Your task to perform on an android device: uninstall "Pandora - Music & Podcasts" Image 0: 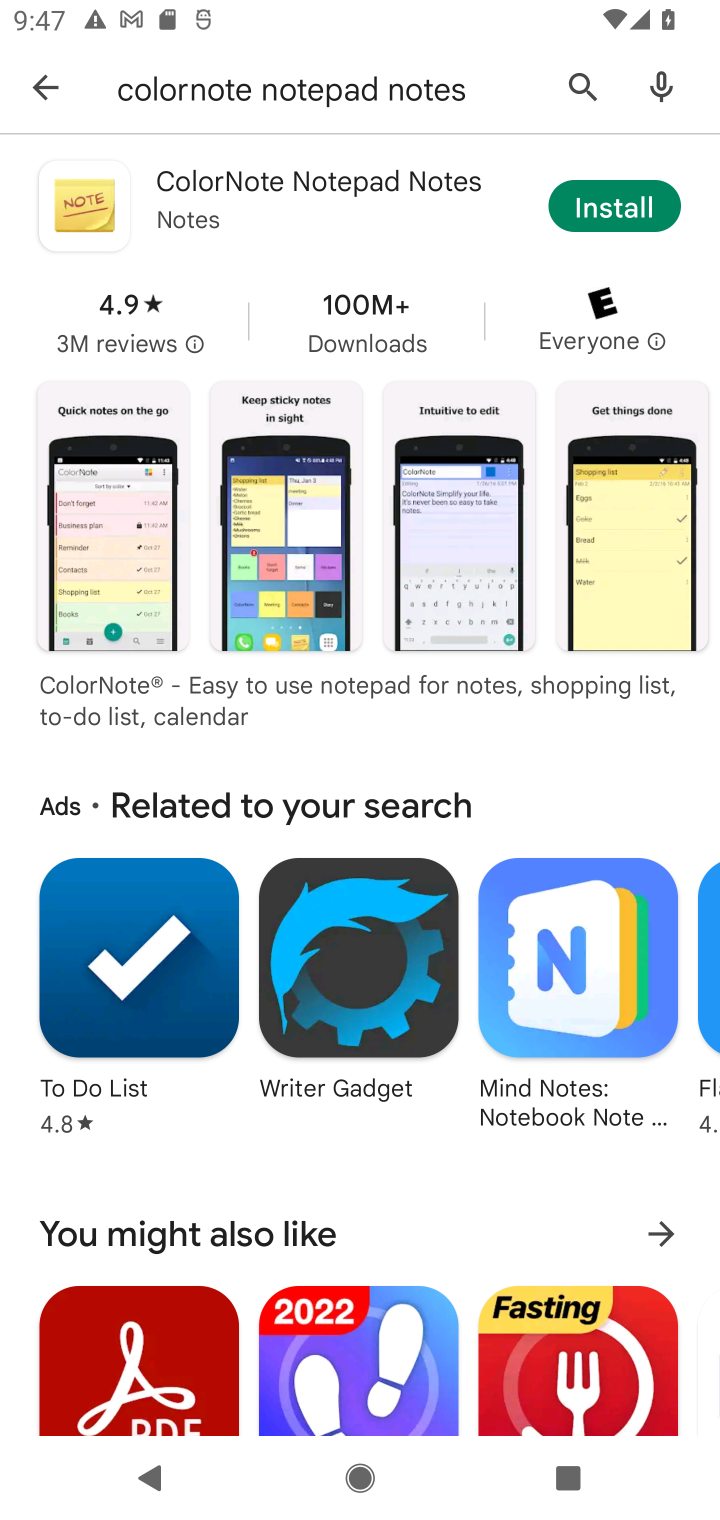
Step 0: click (581, 96)
Your task to perform on an android device: uninstall "Pandora - Music & Podcasts" Image 1: 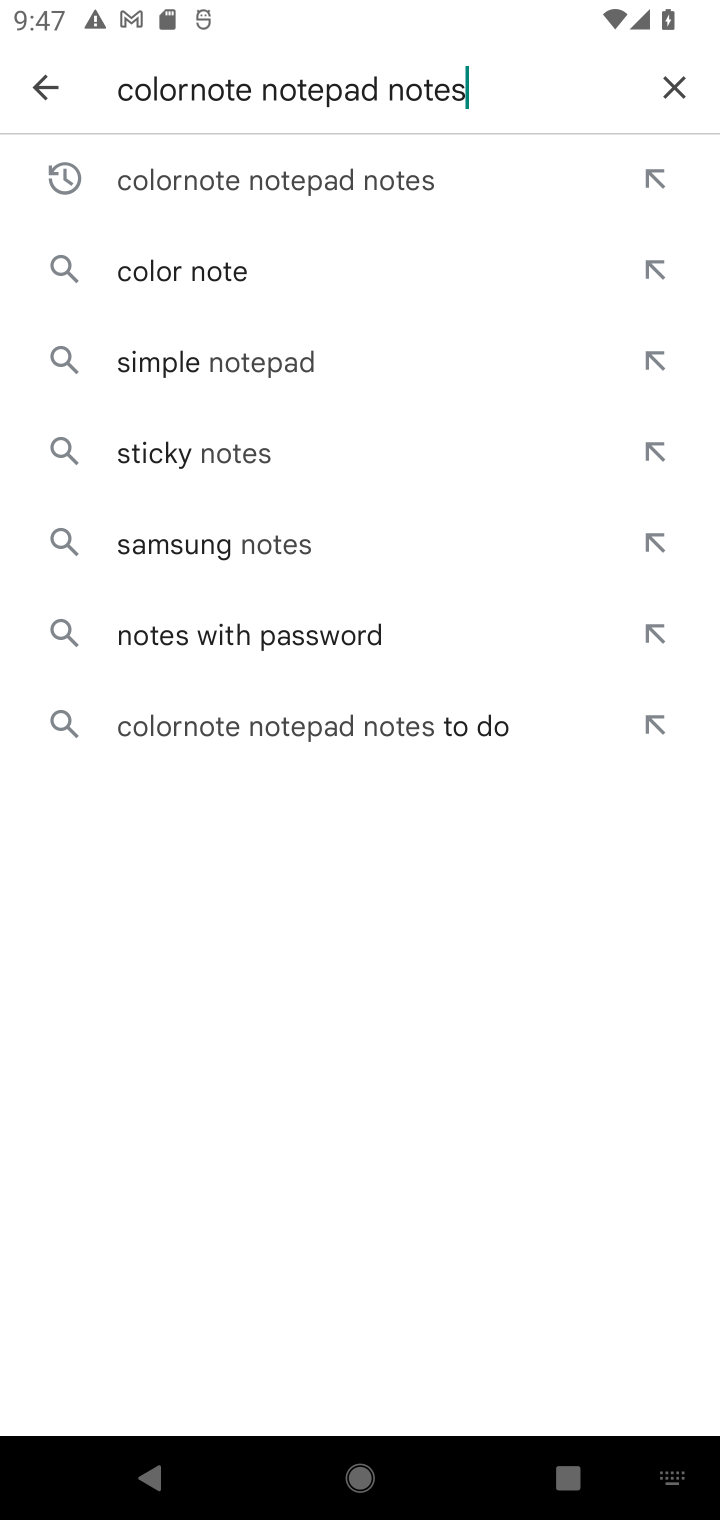
Step 1: click (668, 88)
Your task to perform on an android device: uninstall "Pandora - Music & Podcasts" Image 2: 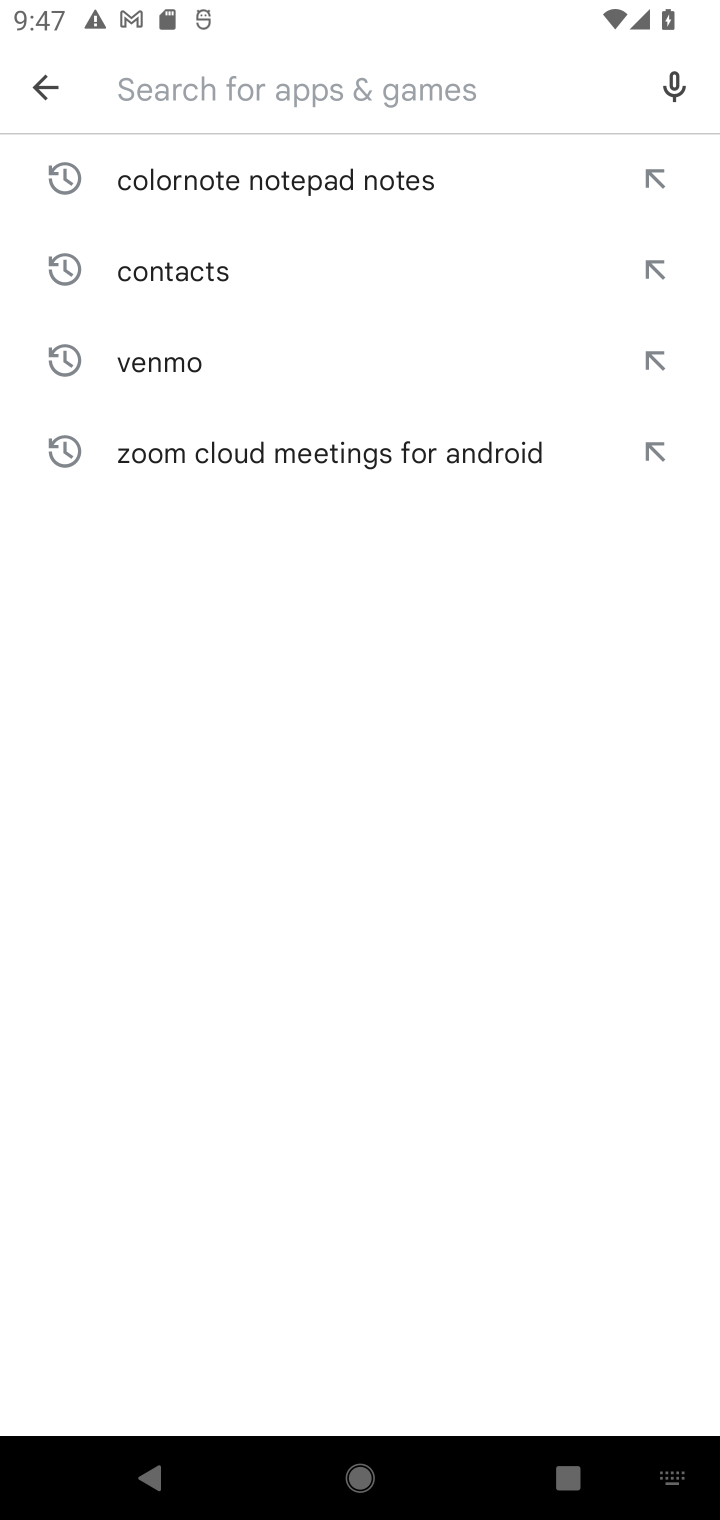
Step 2: type "Pandora - Music & Podcasts"
Your task to perform on an android device: uninstall "Pandora - Music & Podcasts" Image 3: 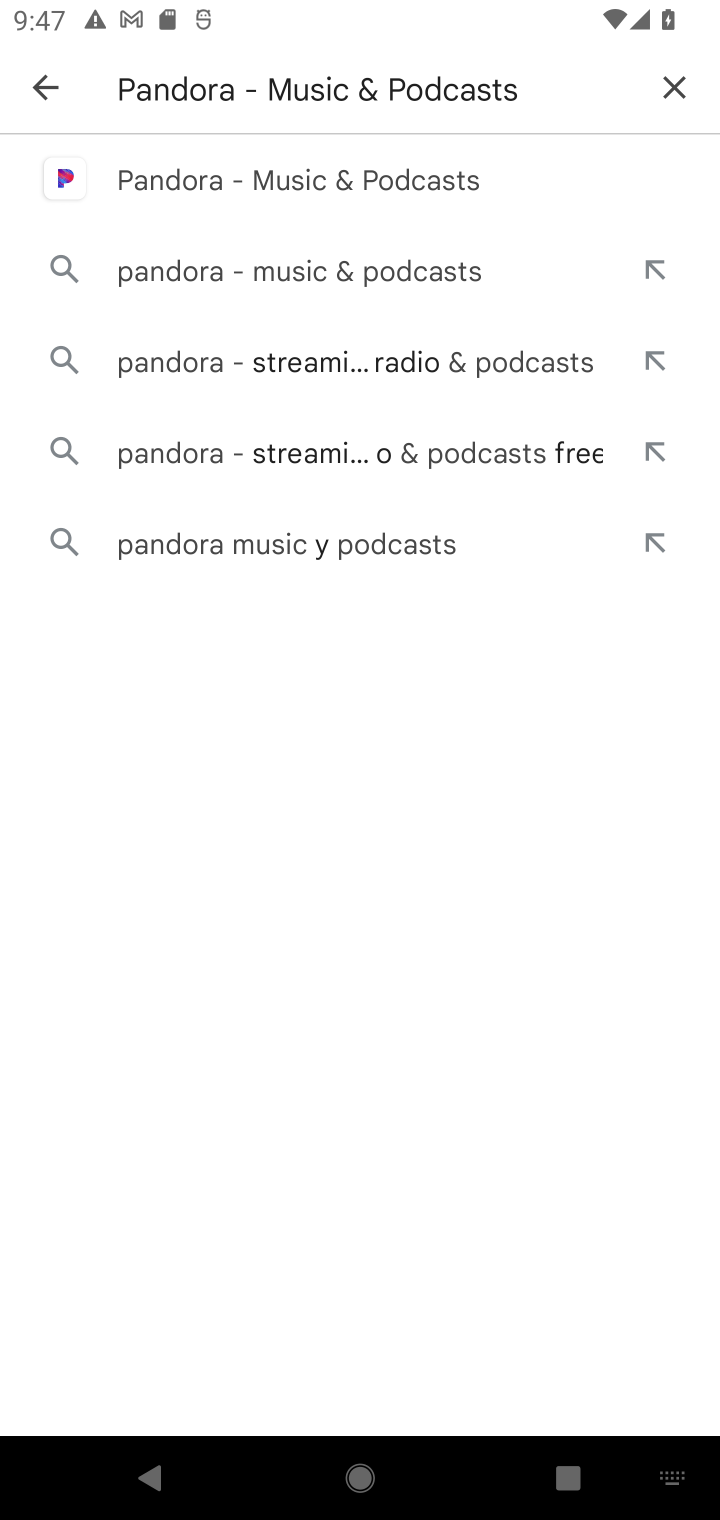
Step 3: click (257, 194)
Your task to perform on an android device: uninstall "Pandora - Music & Podcasts" Image 4: 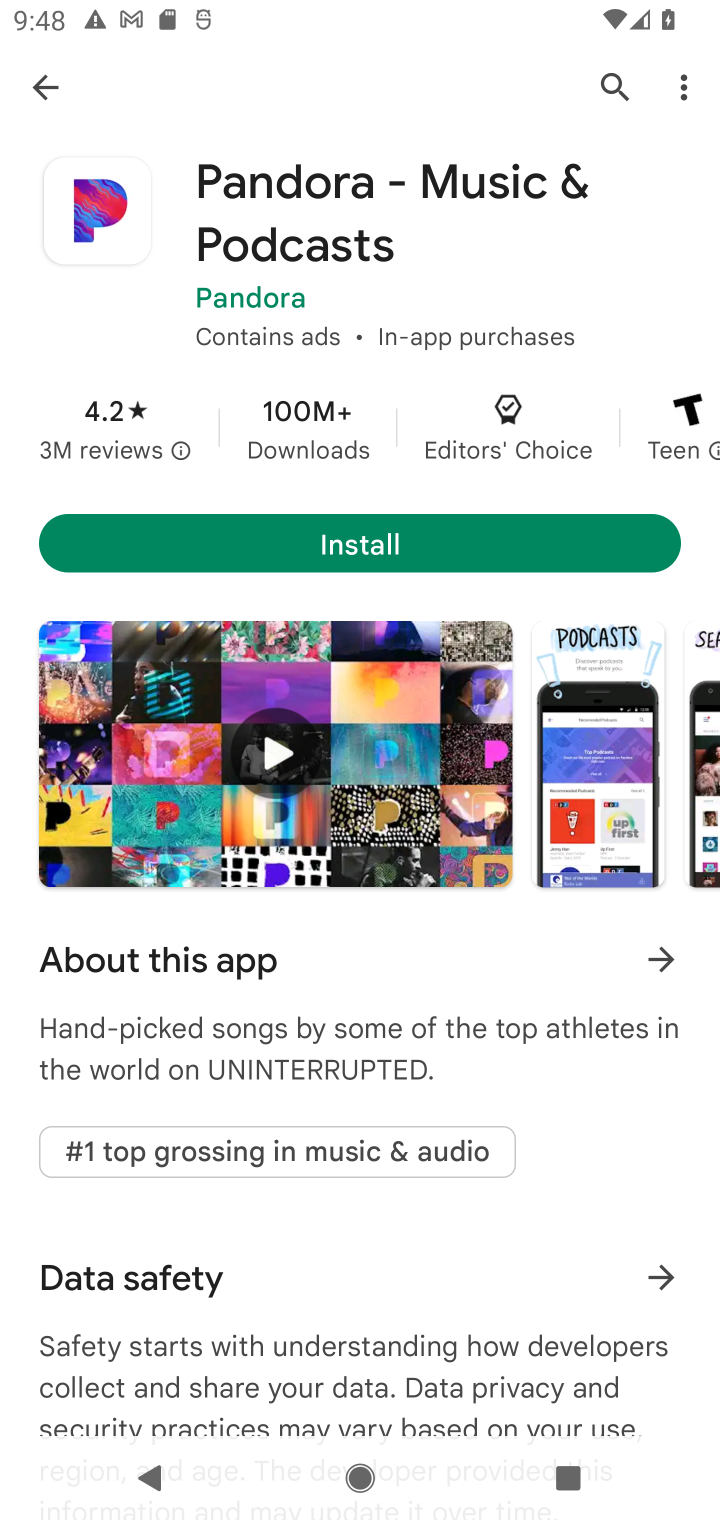
Step 4: task complete